Your task to perform on an android device: Go to Google maps Image 0: 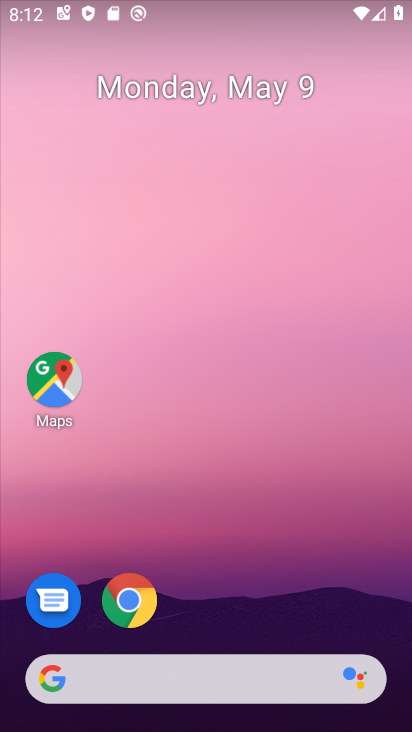
Step 0: drag from (242, 552) to (222, 22)
Your task to perform on an android device: Go to Google maps Image 1: 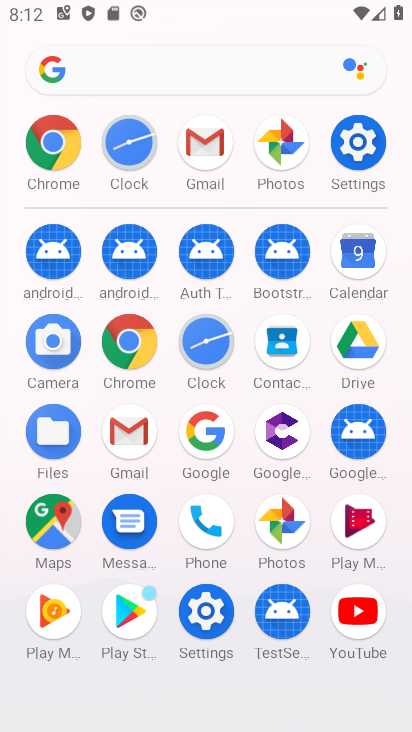
Step 1: drag from (3, 622) to (14, 299)
Your task to perform on an android device: Go to Google maps Image 2: 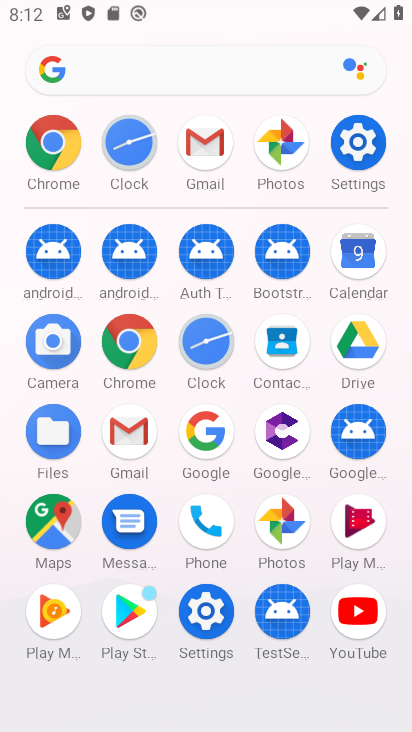
Step 2: click (54, 520)
Your task to perform on an android device: Go to Google maps Image 3: 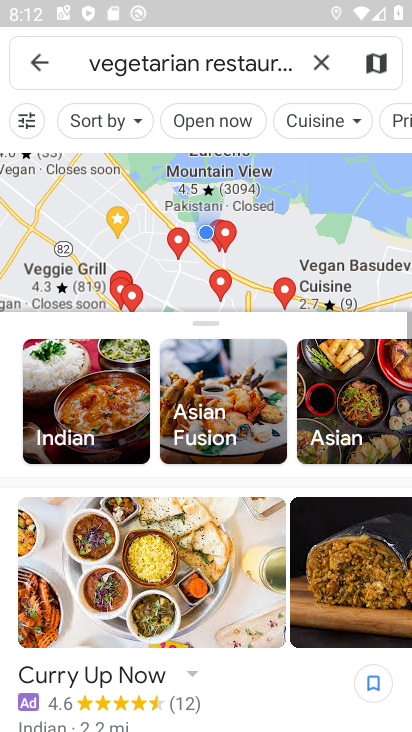
Step 3: click (319, 59)
Your task to perform on an android device: Go to Google maps Image 4: 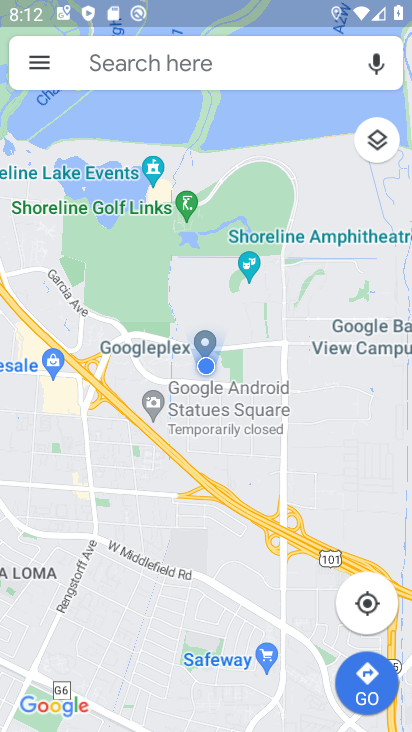
Step 4: task complete